Your task to perform on an android device: Clear all items from cart on amazon.com. Image 0: 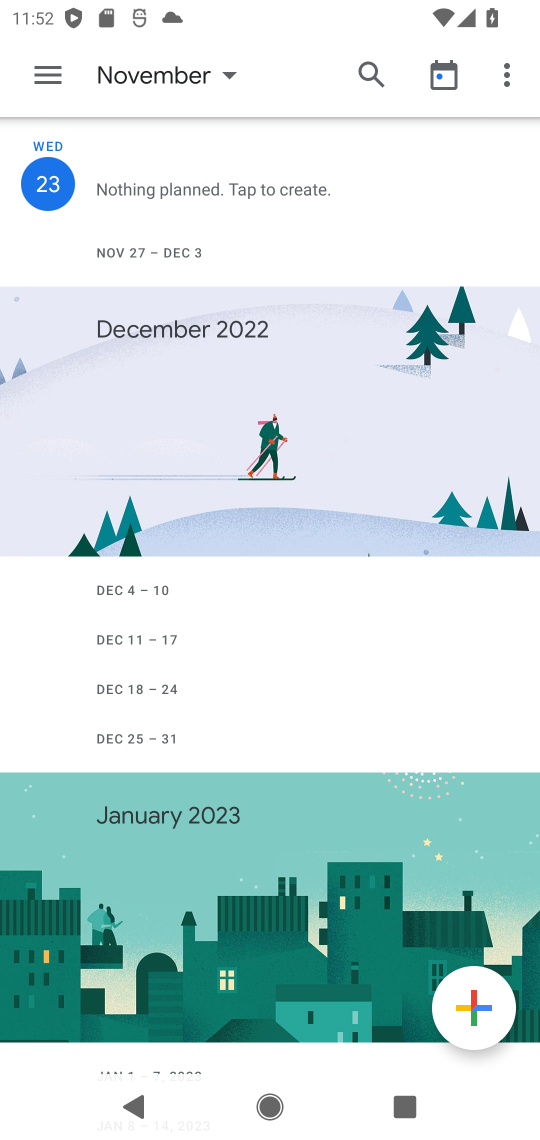
Step 0: press home button
Your task to perform on an android device: Clear all items from cart on amazon.com. Image 1: 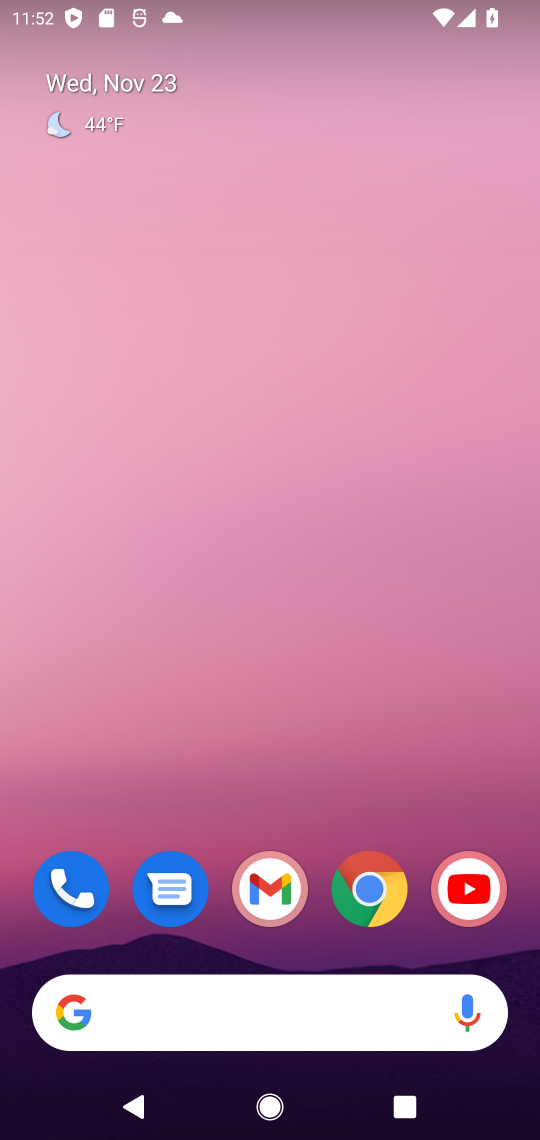
Step 1: click (374, 894)
Your task to perform on an android device: Clear all items from cart on amazon.com. Image 2: 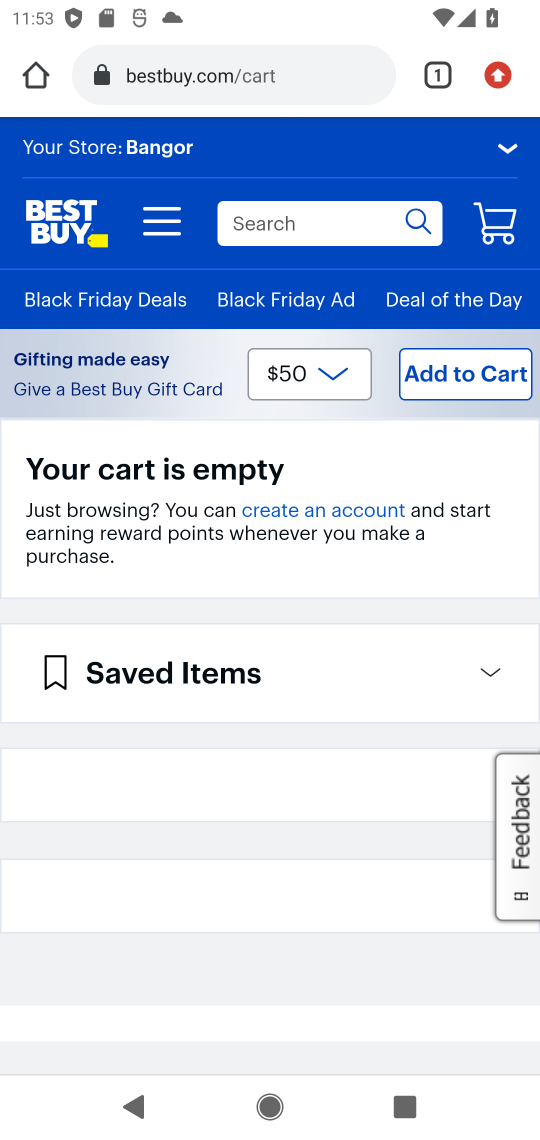
Step 2: click (204, 65)
Your task to perform on an android device: Clear all items from cart on amazon.com. Image 3: 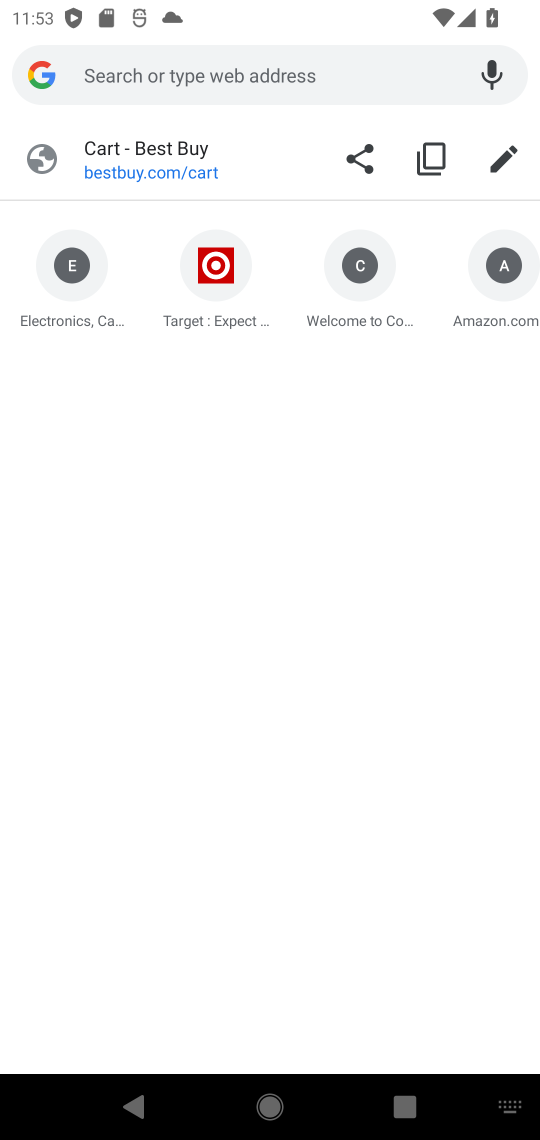
Step 3: type "amazon.com"
Your task to perform on an android device: Clear all items from cart on amazon.com. Image 4: 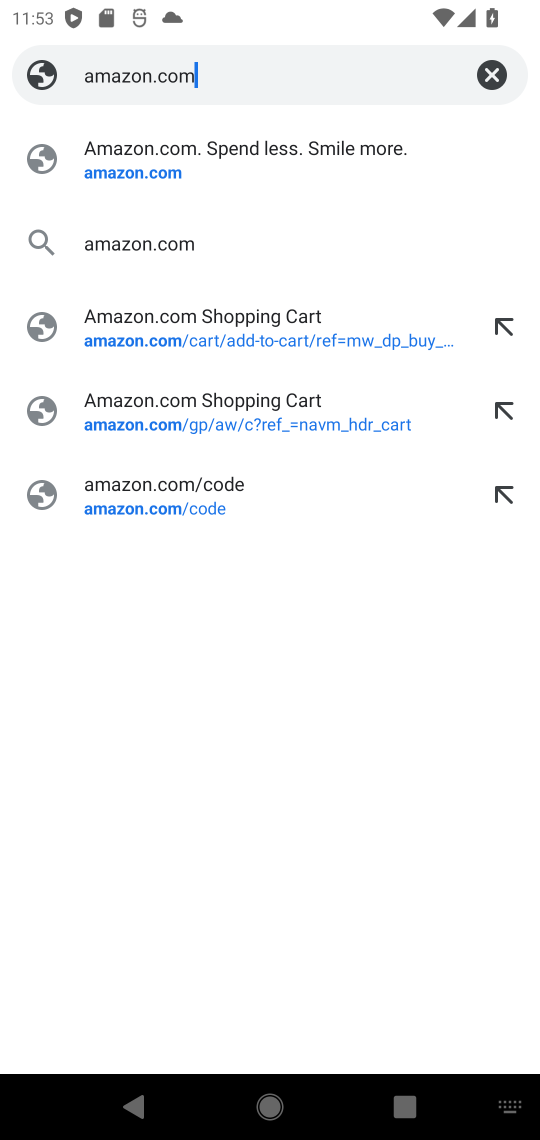
Step 4: click (137, 175)
Your task to perform on an android device: Clear all items from cart on amazon.com. Image 5: 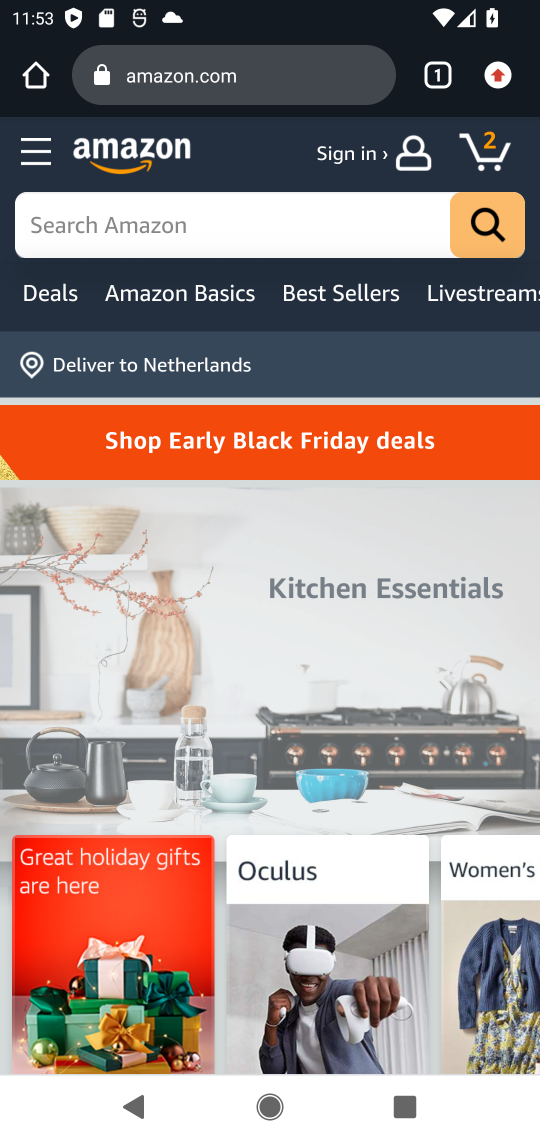
Step 5: click (483, 155)
Your task to perform on an android device: Clear all items from cart on amazon.com. Image 6: 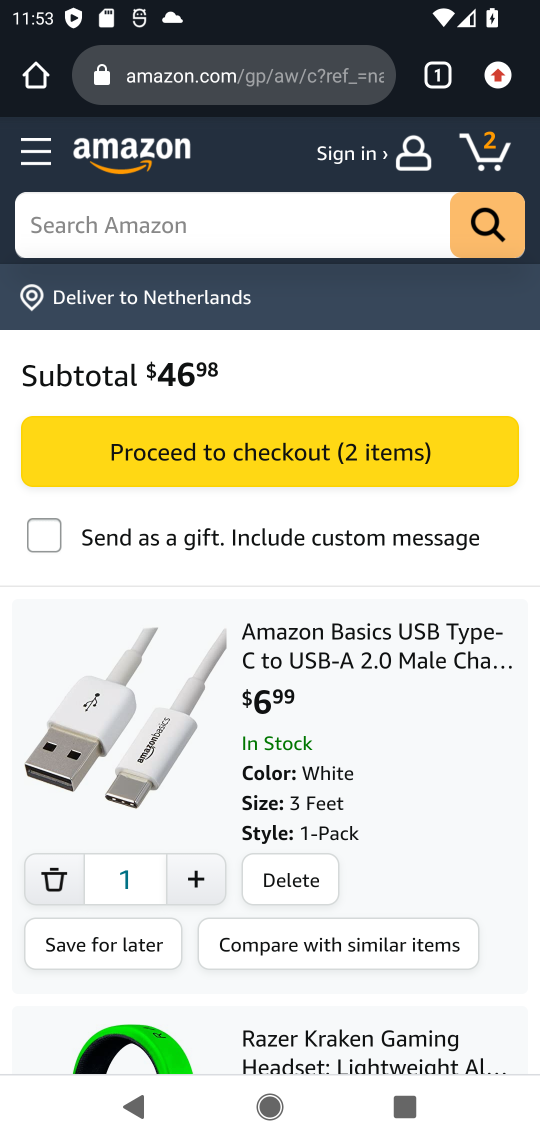
Step 6: click (39, 884)
Your task to perform on an android device: Clear all items from cart on amazon.com. Image 7: 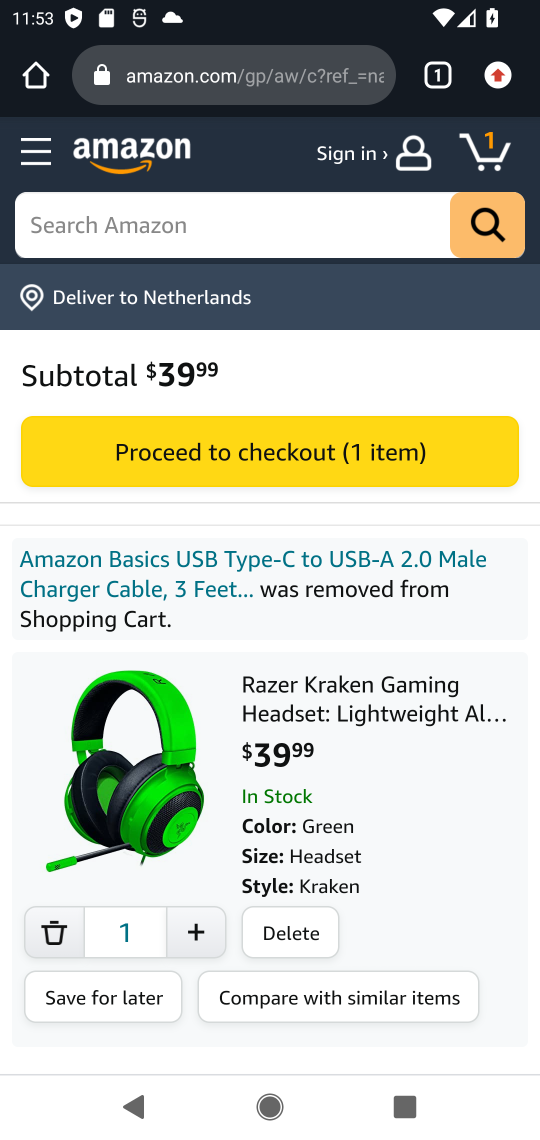
Step 7: click (51, 938)
Your task to perform on an android device: Clear all items from cart on amazon.com. Image 8: 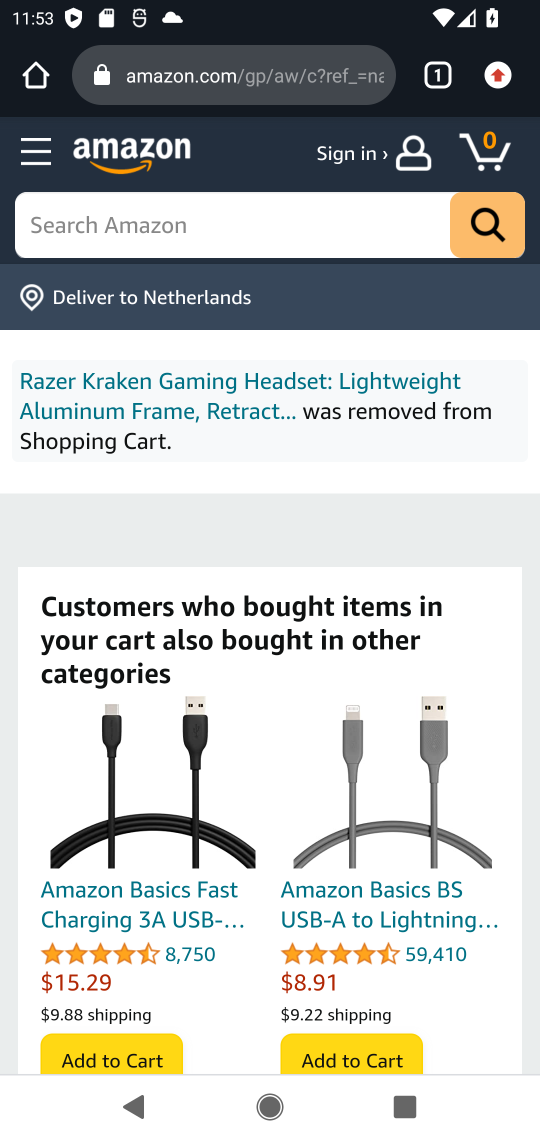
Step 8: task complete